Your task to perform on an android device: Show me the alarms in the clock app Image 0: 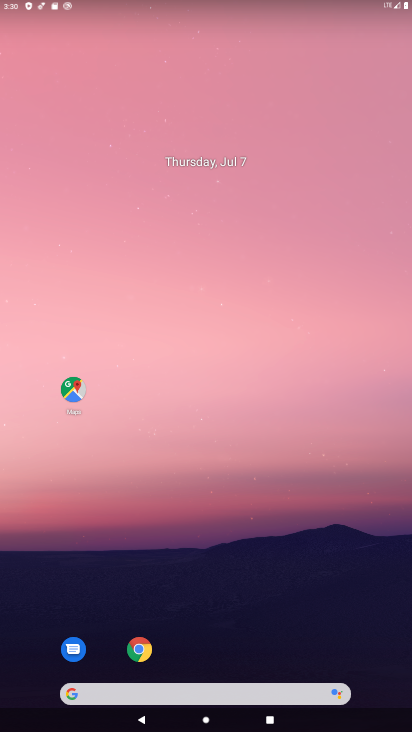
Step 0: press home button
Your task to perform on an android device: Show me the alarms in the clock app Image 1: 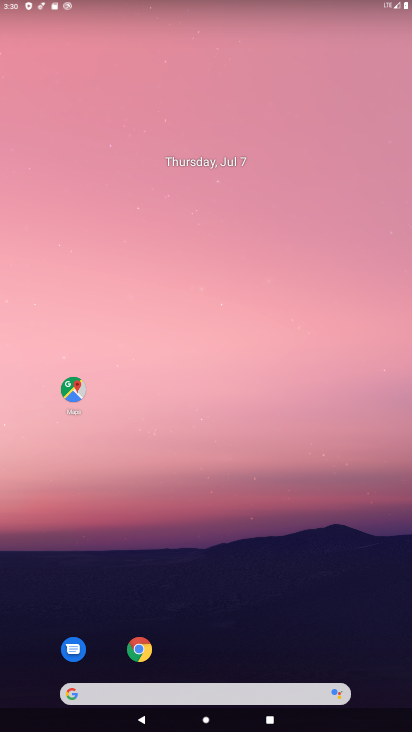
Step 1: drag from (310, 656) to (283, 183)
Your task to perform on an android device: Show me the alarms in the clock app Image 2: 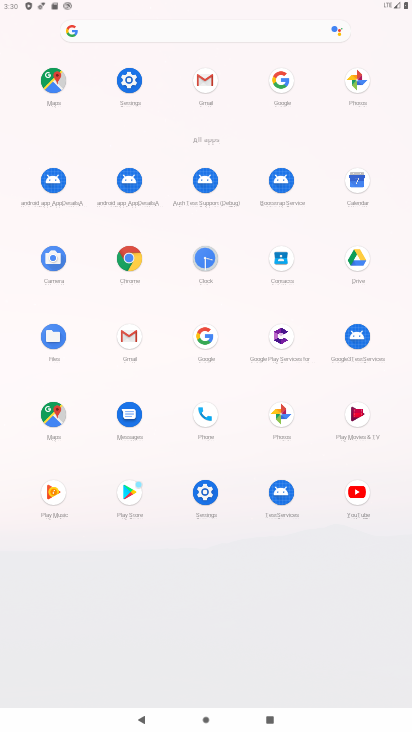
Step 2: click (207, 266)
Your task to perform on an android device: Show me the alarms in the clock app Image 3: 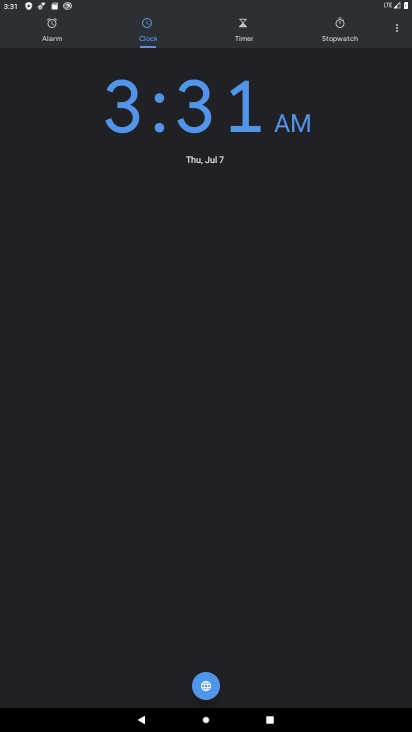
Step 3: click (54, 30)
Your task to perform on an android device: Show me the alarms in the clock app Image 4: 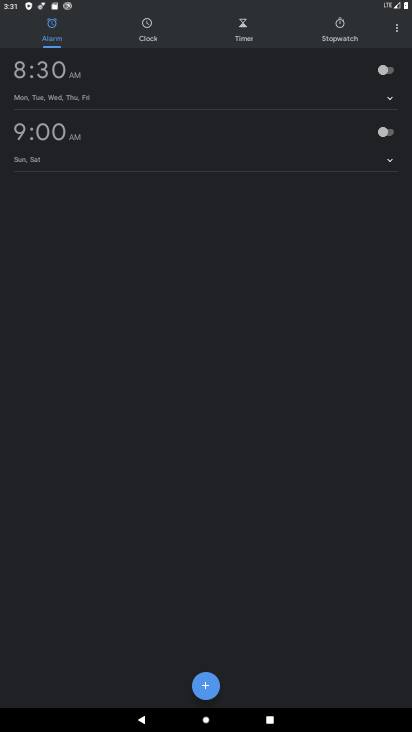
Step 4: task complete